Your task to perform on an android device: Open sound settings Image 0: 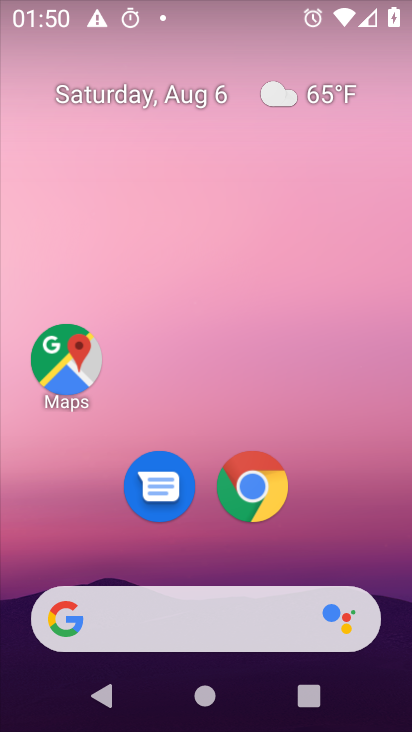
Step 0: drag from (206, 531) to (272, 20)
Your task to perform on an android device: Open sound settings Image 1: 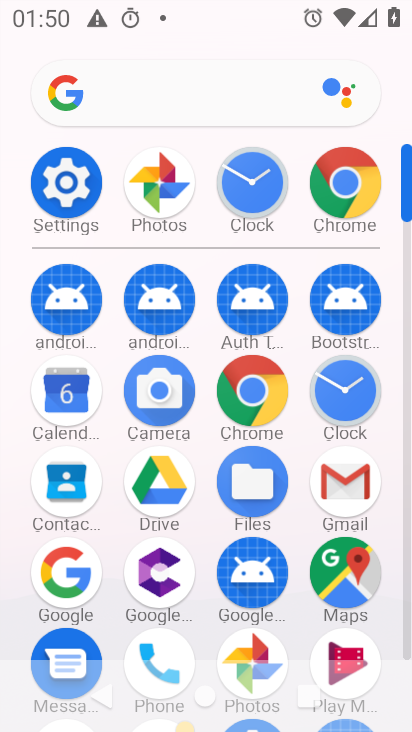
Step 1: click (75, 175)
Your task to perform on an android device: Open sound settings Image 2: 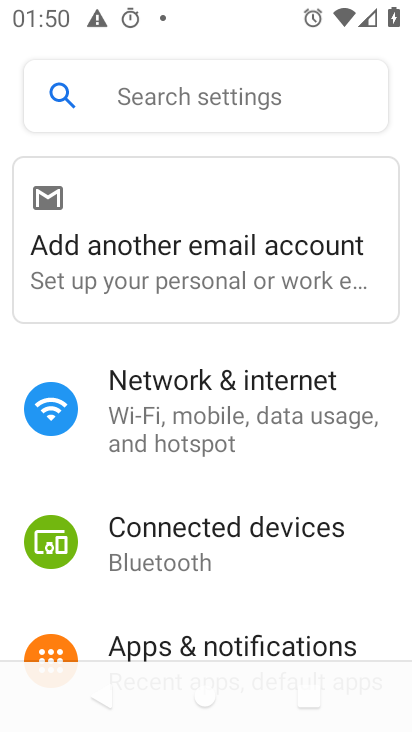
Step 2: drag from (289, 625) to (303, 104)
Your task to perform on an android device: Open sound settings Image 3: 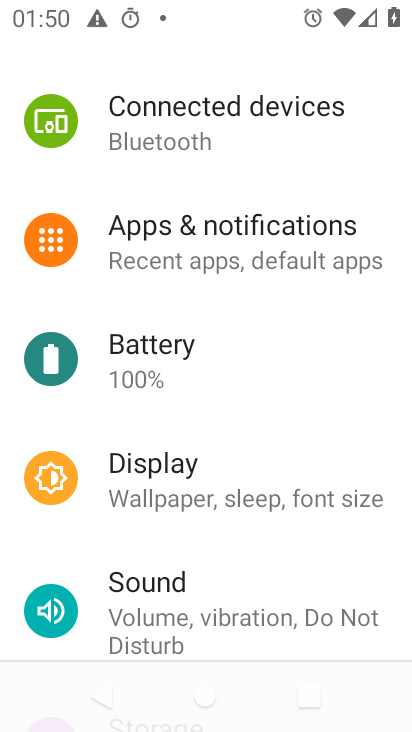
Step 3: click (157, 608)
Your task to perform on an android device: Open sound settings Image 4: 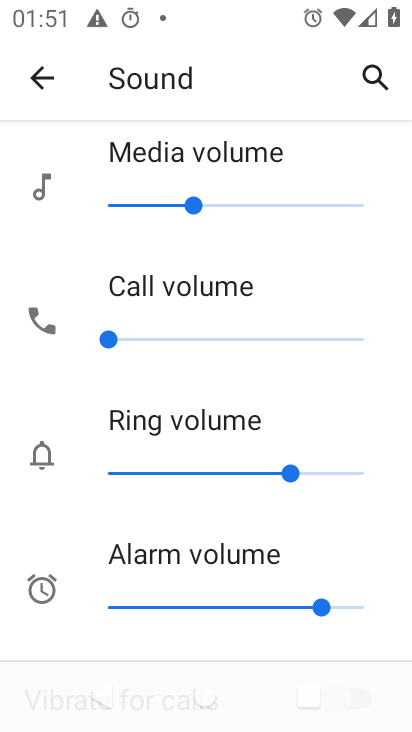
Step 4: task complete